Your task to perform on an android device: search for starred emails in the gmail app Image 0: 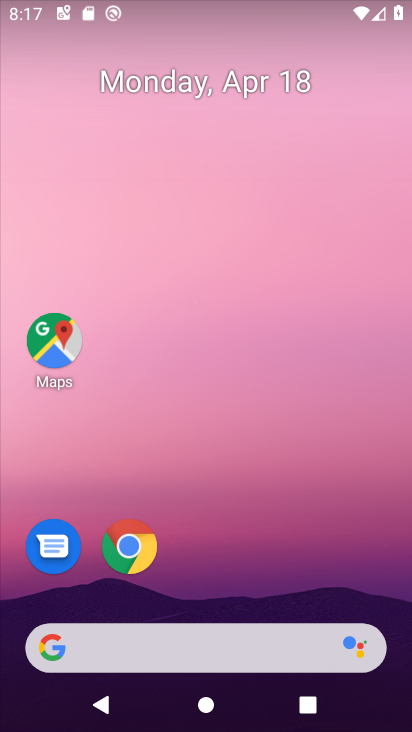
Step 0: drag from (324, 453) to (269, 188)
Your task to perform on an android device: search for starred emails in the gmail app Image 1: 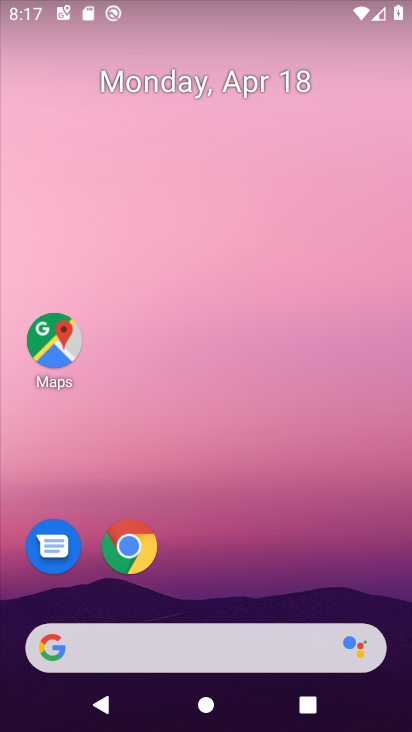
Step 1: drag from (383, 566) to (214, 144)
Your task to perform on an android device: search for starred emails in the gmail app Image 2: 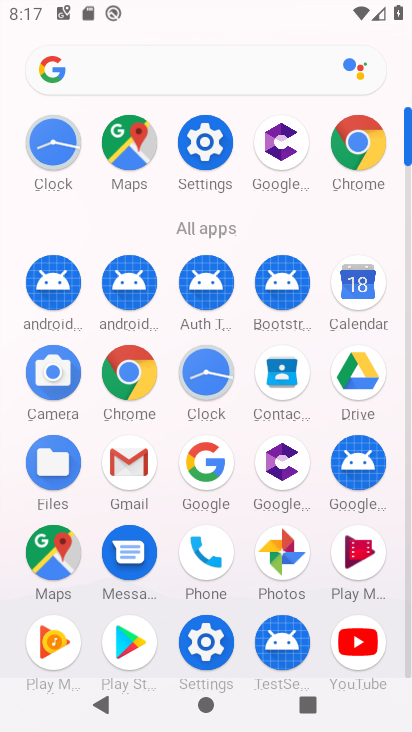
Step 2: click (138, 459)
Your task to perform on an android device: search for starred emails in the gmail app Image 3: 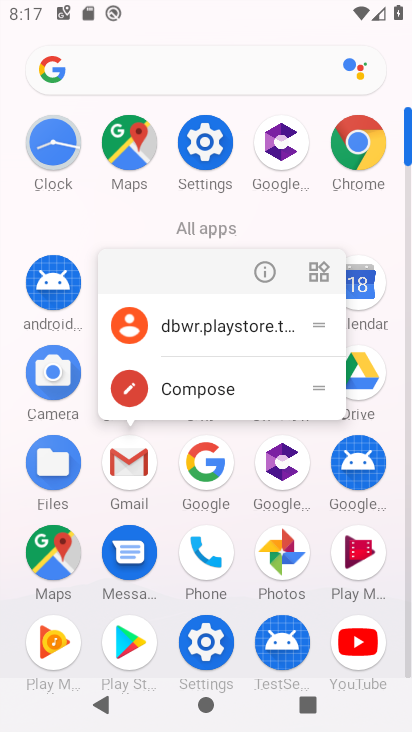
Step 3: click (138, 459)
Your task to perform on an android device: search for starred emails in the gmail app Image 4: 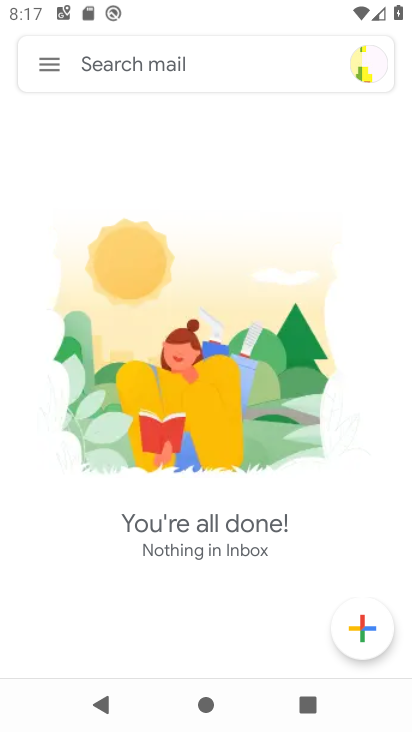
Step 4: click (40, 59)
Your task to perform on an android device: search for starred emails in the gmail app Image 5: 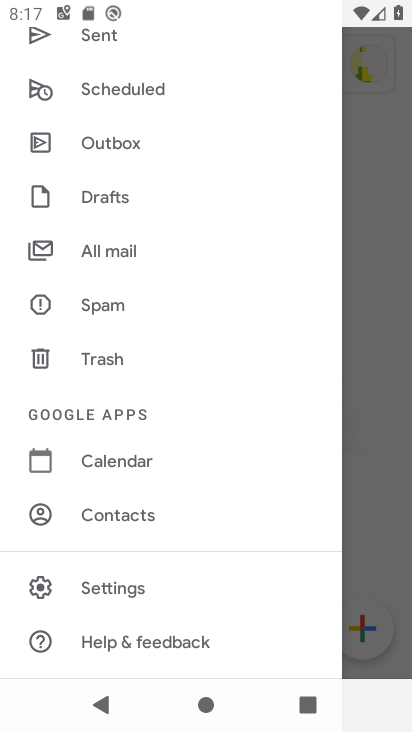
Step 5: drag from (236, 90) to (308, 592)
Your task to perform on an android device: search for starred emails in the gmail app Image 6: 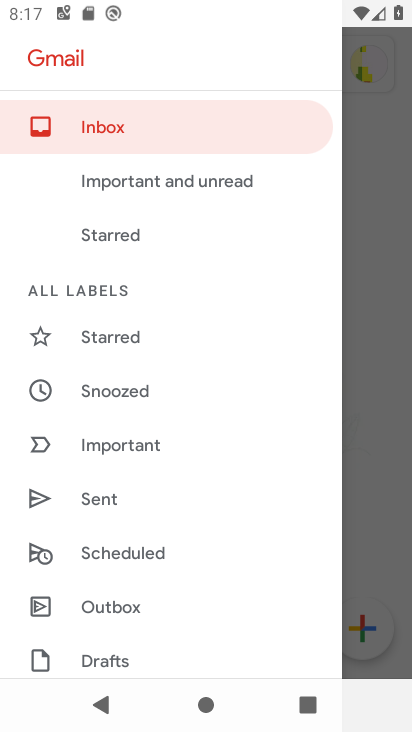
Step 6: click (144, 353)
Your task to perform on an android device: search for starred emails in the gmail app Image 7: 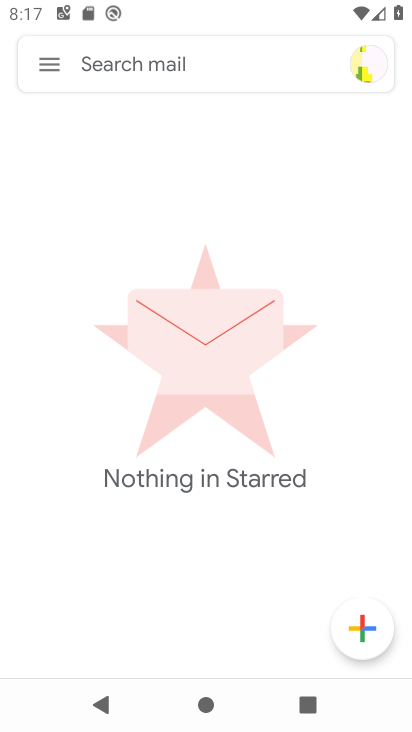
Step 7: task complete